Your task to perform on an android device: What's on my calendar tomorrow? Image 0: 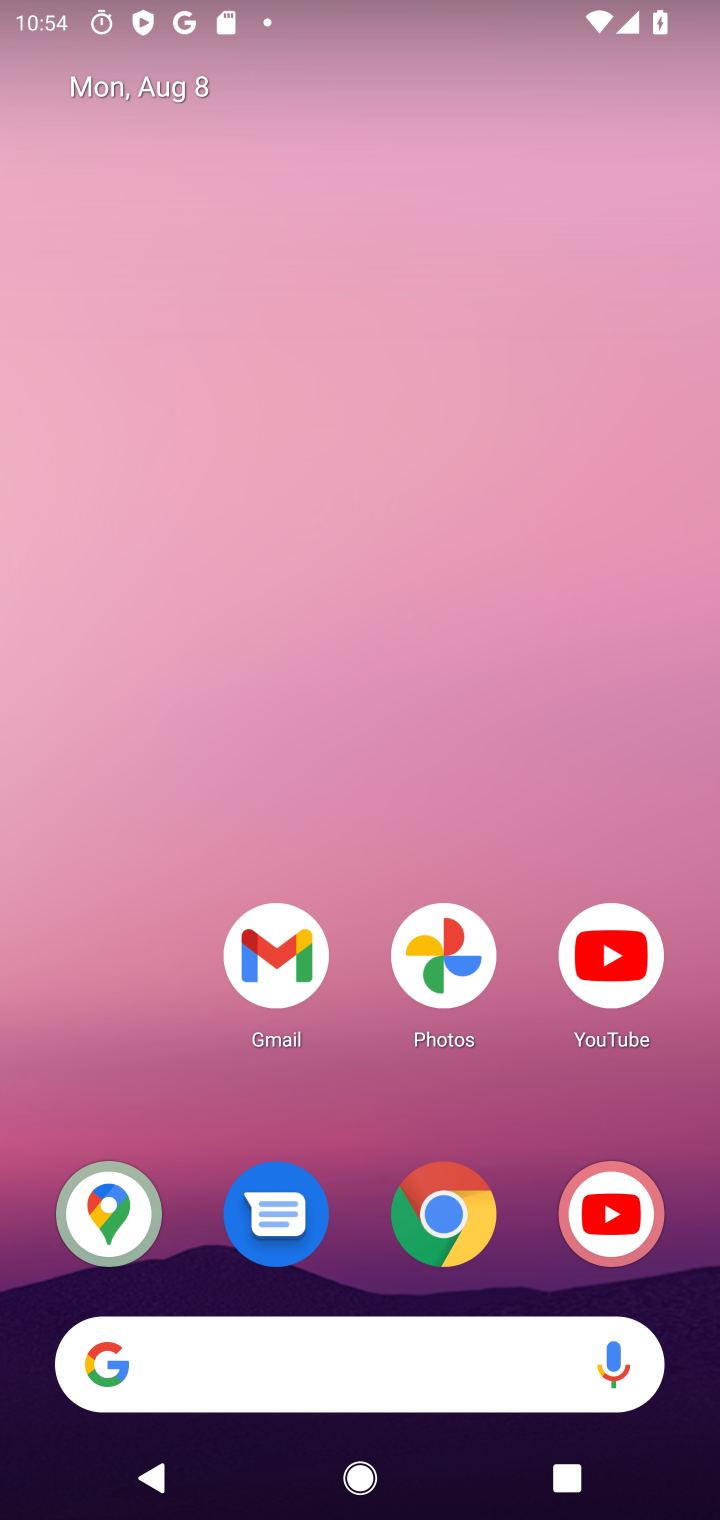
Step 0: drag from (63, 1476) to (535, 32)
Your task to perform on an android device: What's on my calendar tomorrow? Image 1: 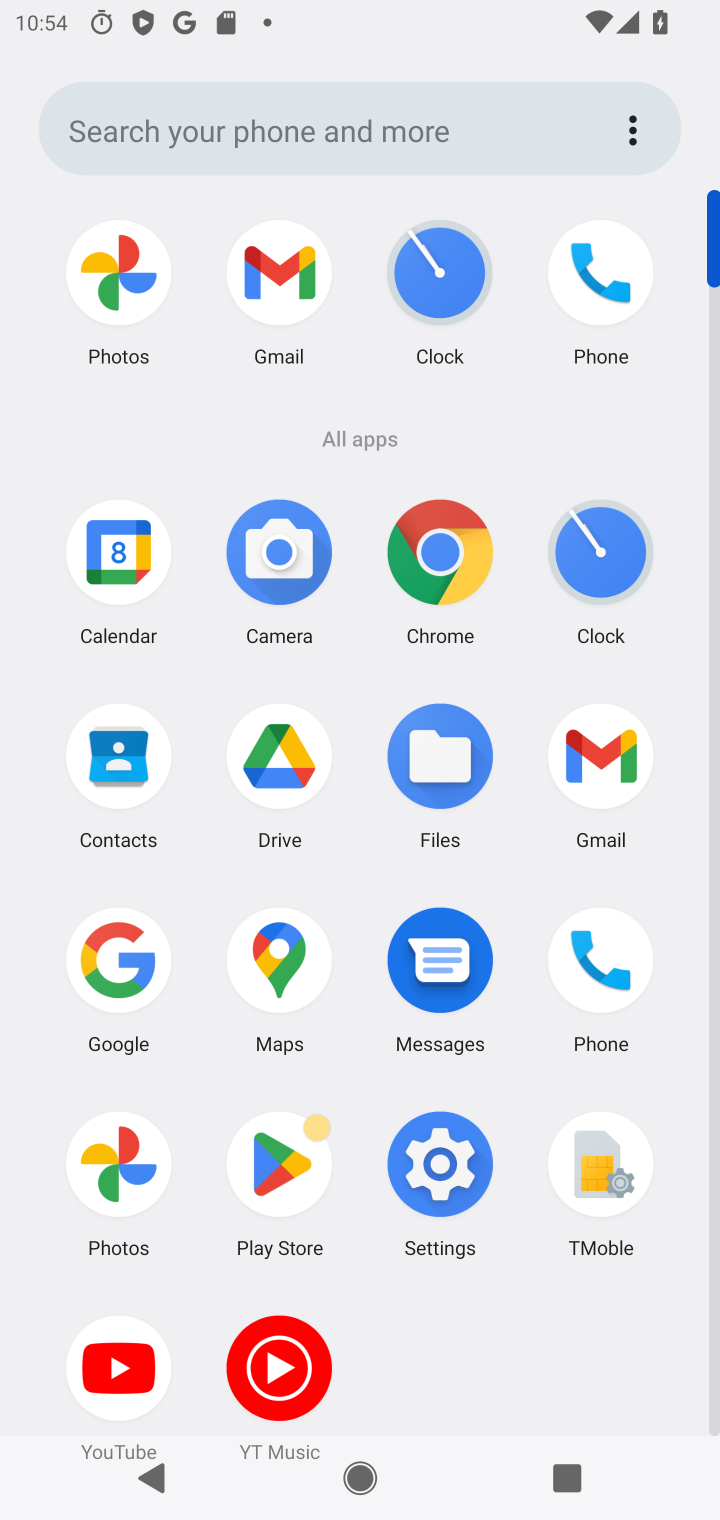
Step 1: click (84, 575)
Your task to perform on an android device: What's on my calendar tomorrow? Image 2: 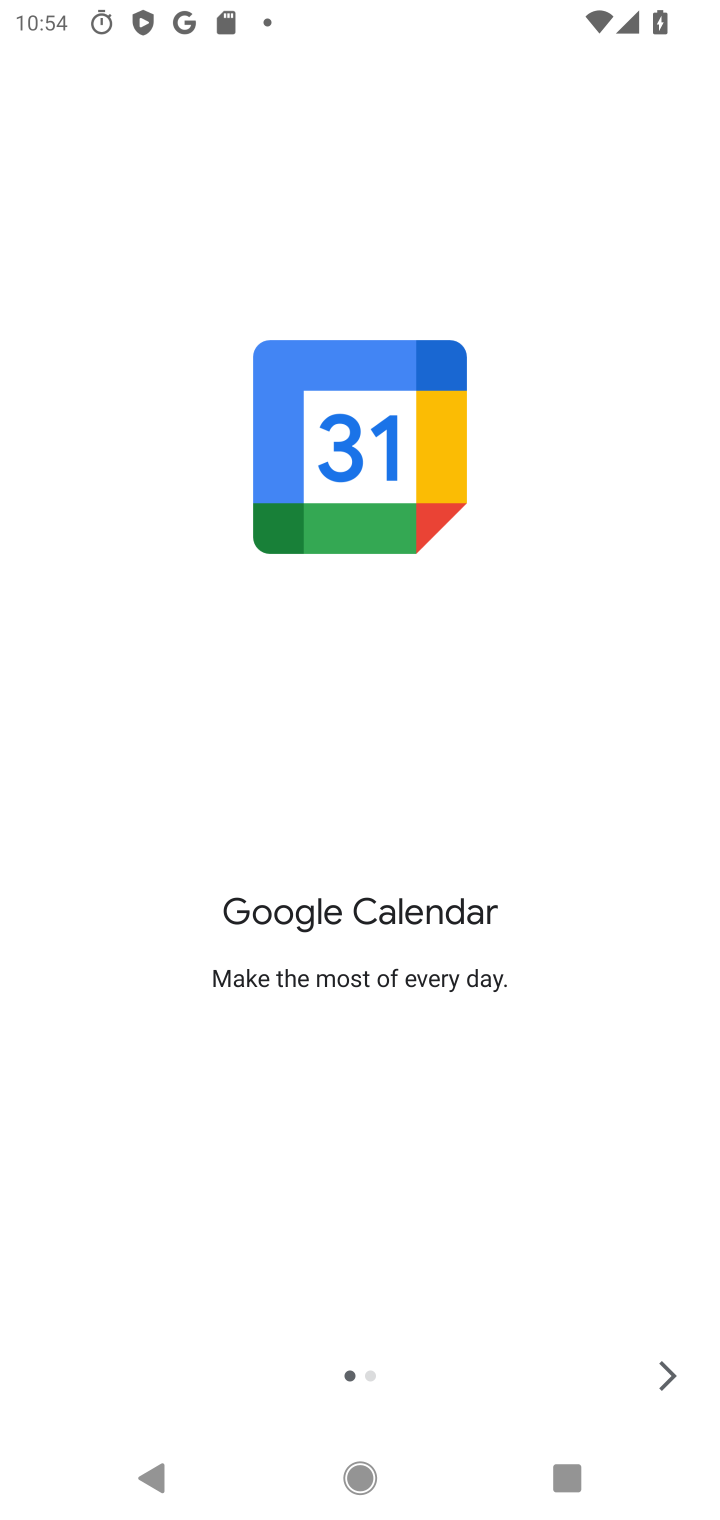
Step 2: click (672, 1378)
Your task to perform on an android device: What's on my calendar tomorrow? Image 3: 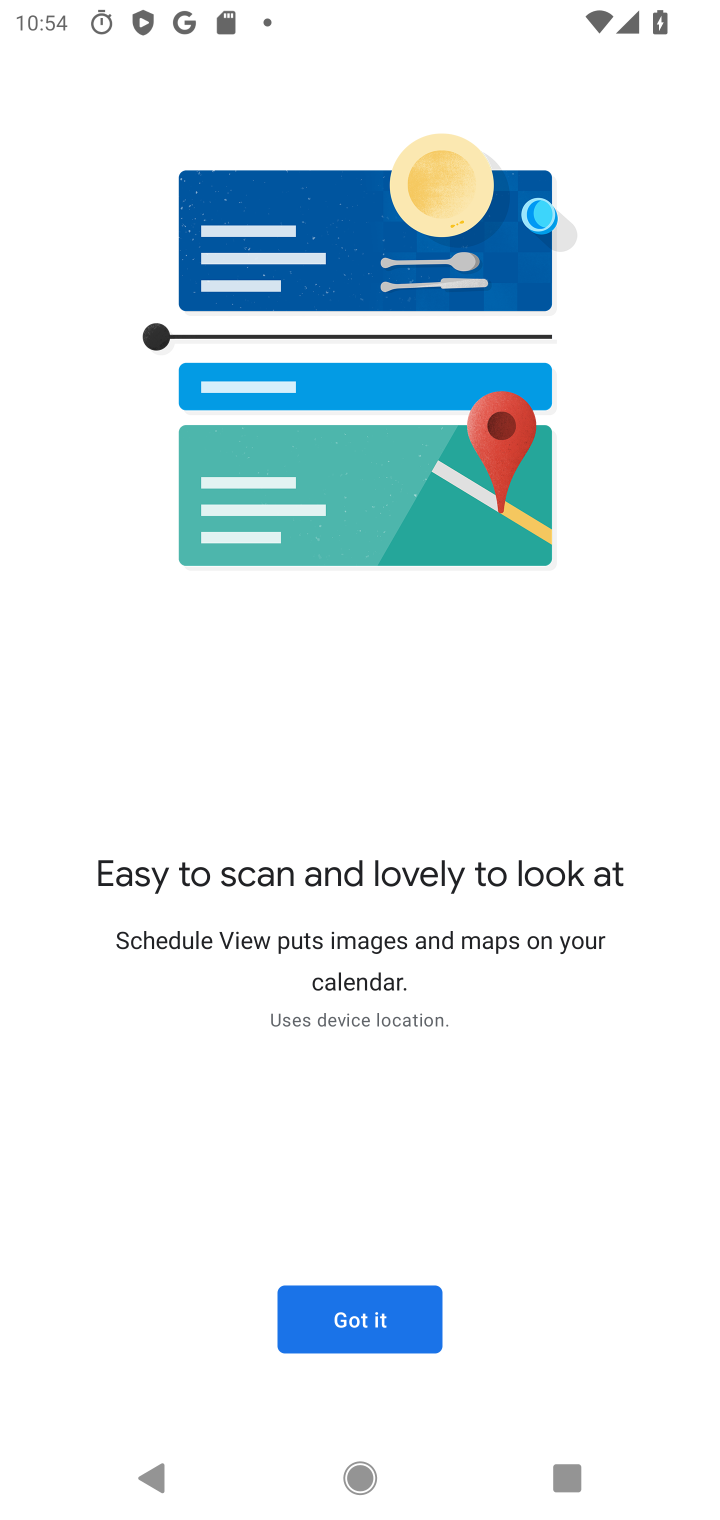
Step 3: click (346, 1303)
Your task to perform on an android device: What's on my calendar tomorrow? Image 4: 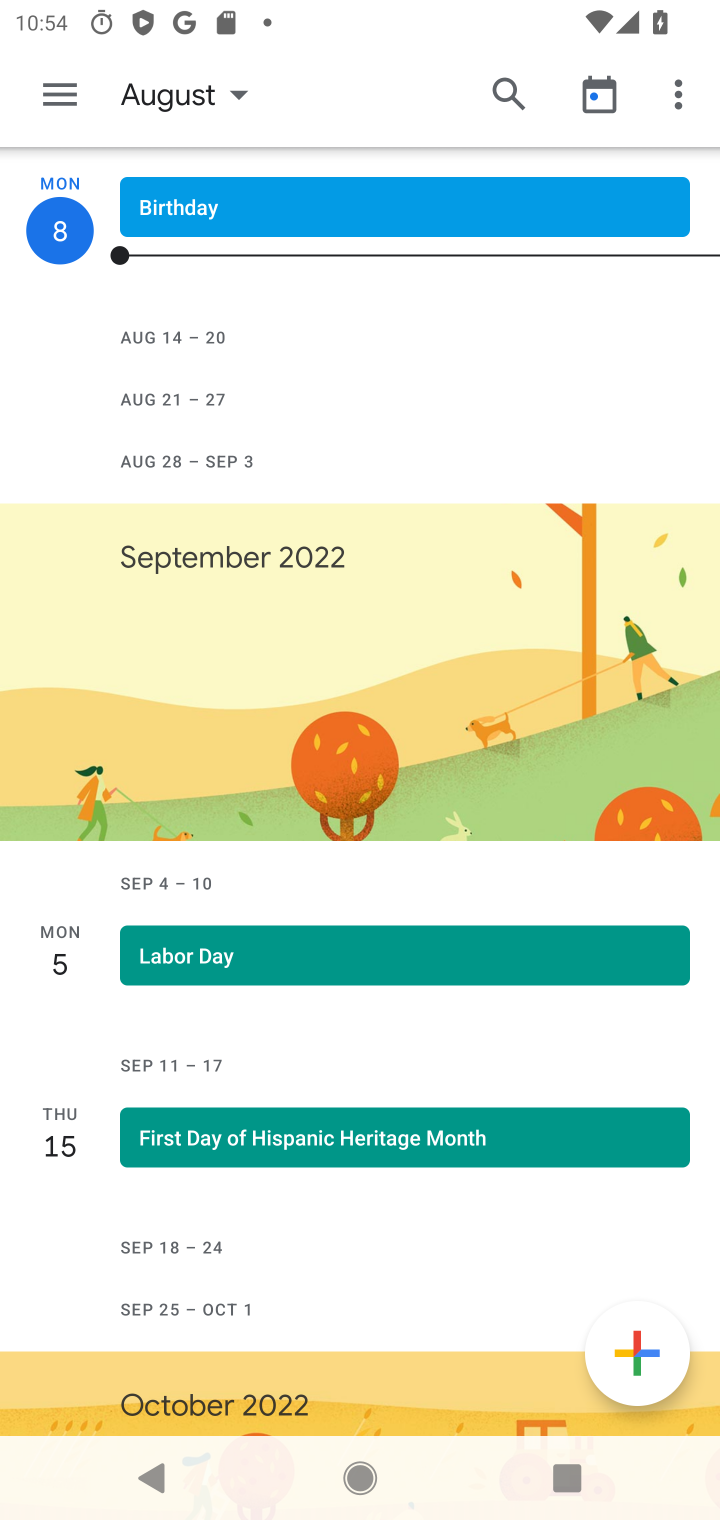
Step 4: click (230, 97)
Your task to perform on an android device: What's on my calendar tomorrow? Image 5: 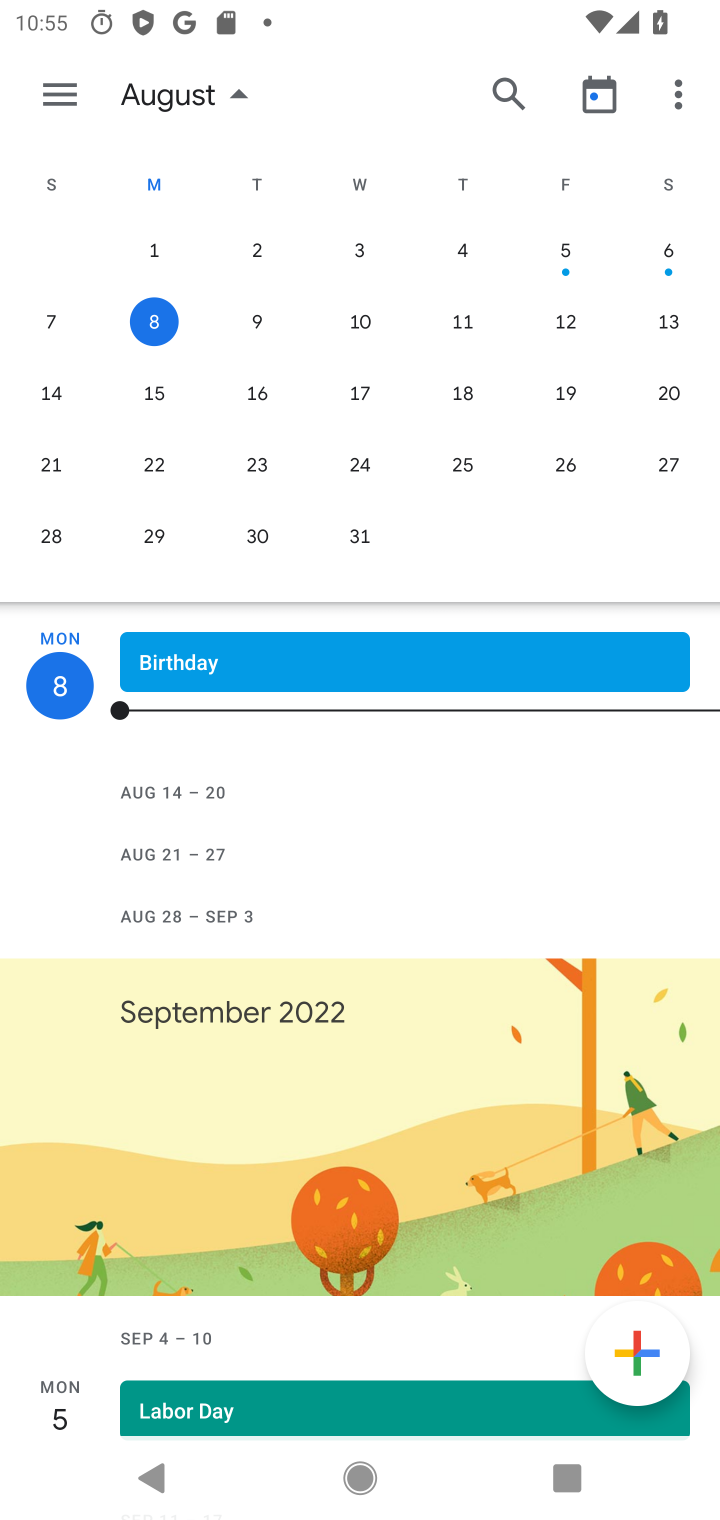
Step 5: task complete